Your task to perform on an android device: toggle wifi Image 0: 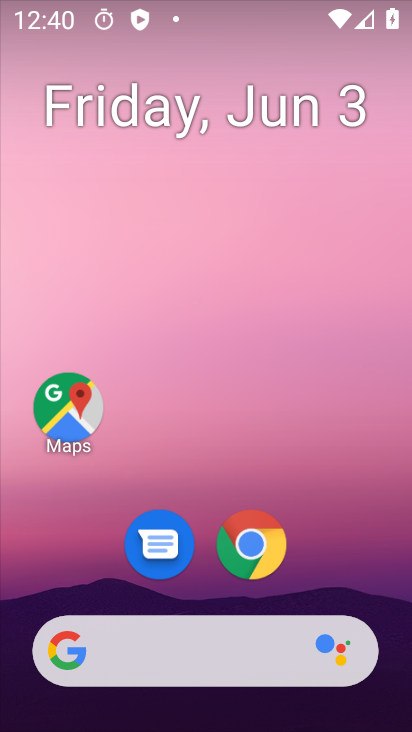
Step 0: drag from (326, 576) to (330, 18)
Your task to perform on an android device: toggle wifi Image 1: 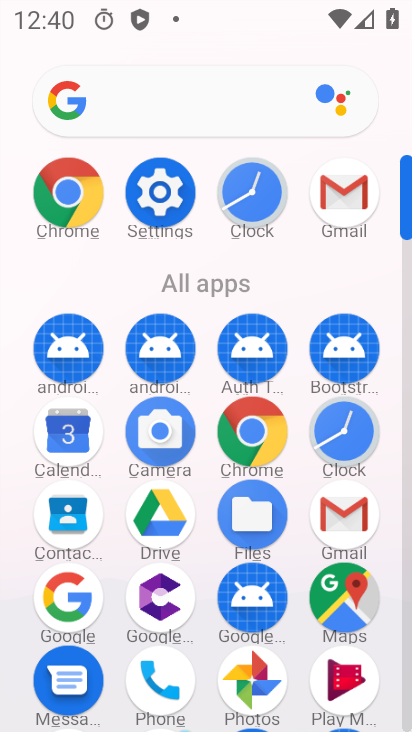
Step 1: click (168, 190)
Your task to perform on an android device: toggle wifi Image 2: 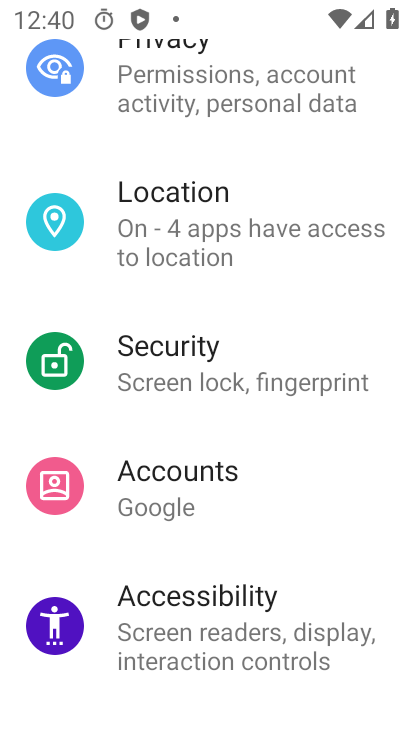
Step 2: drag from (232, 227) to (304, 693)
Your task to perform on an android device: toggle wifi Image 3: 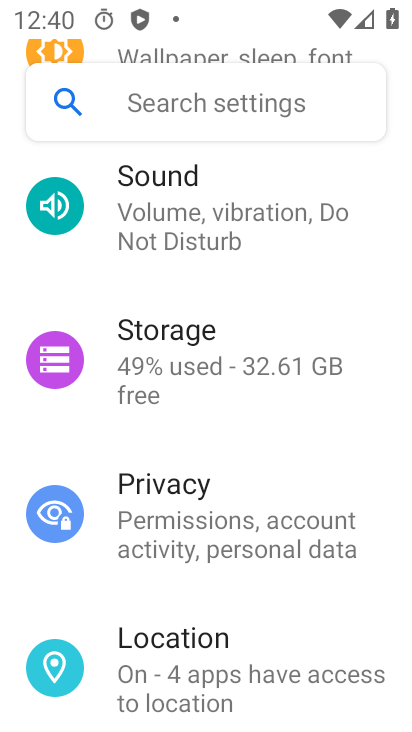
Step 3: drag from (222, 300) to (230, 728)
Your task to perform on an android device: toggle wifi Image 4: 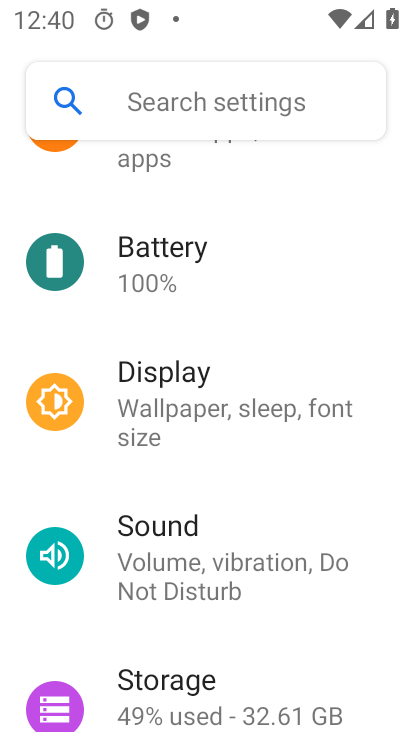
Step 4: drag from (194, 292) to (234, 731)
Your task to perform on an android device: toggle wifi Image 5: 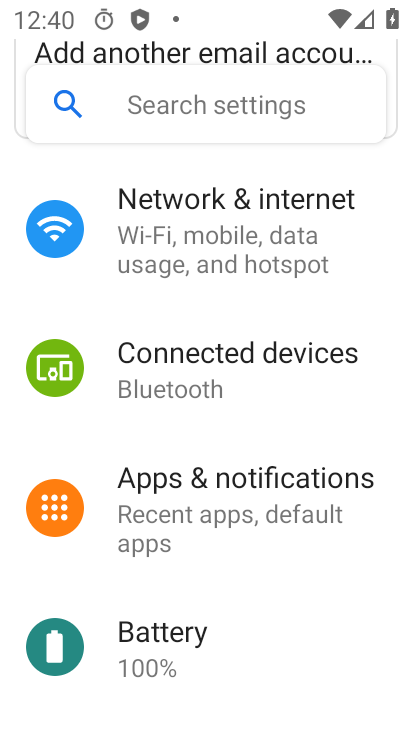
Step 5: click (212, 256)
Your task to perform on an android device: toggle wifi Image 6: 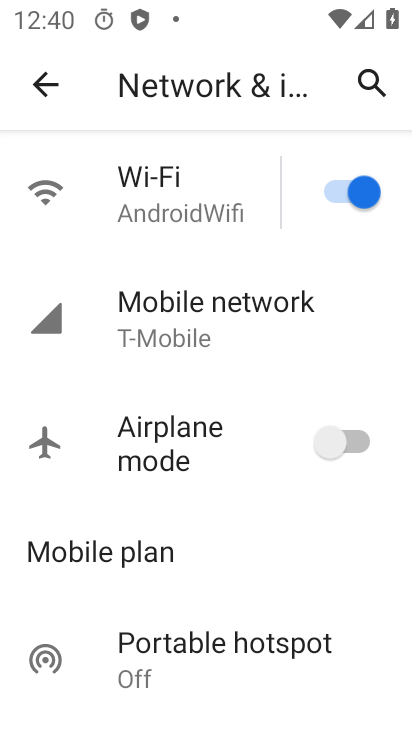
Step 6: click (330, 189)
Your task to perform on an android device: toggle wifi Image 7: 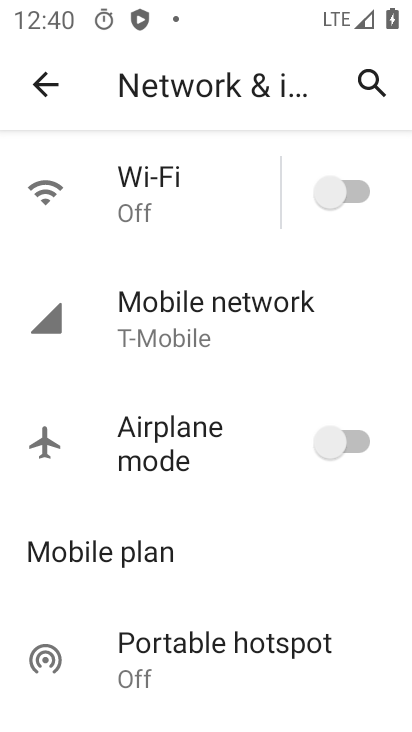
Step 7: task complete